Your task to perform on an android device: Go to accessibility settings Image 0: 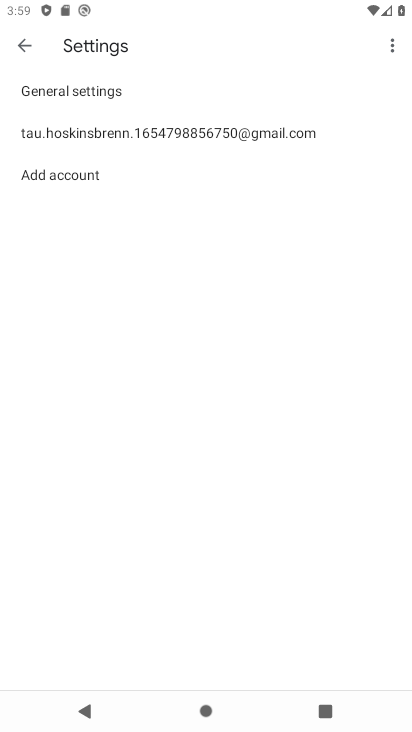
Step 0: click (13, 40)
Your task to perform on an android device: Go to accessibility settings Image 1: 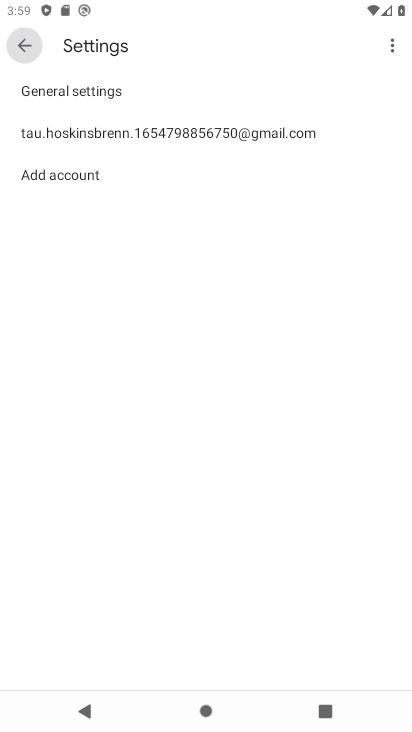
Step 1: click (14, 45)
Your task to perform on an android device: Go to accessibility settings Image 2: 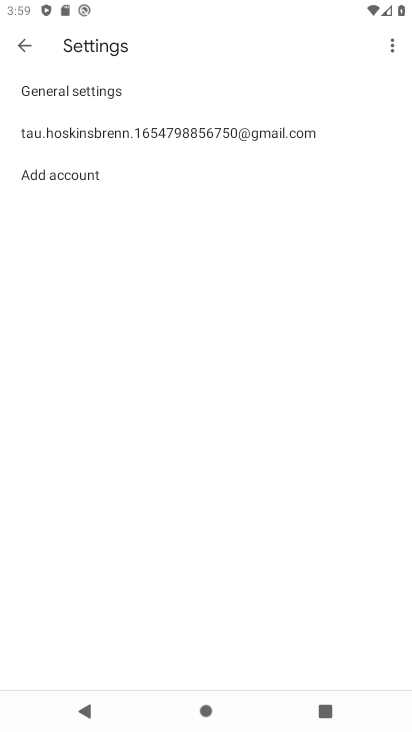
Step 2: click (14, 45)
Your task to perform on an android device: Go to accessibility settings Image 3: 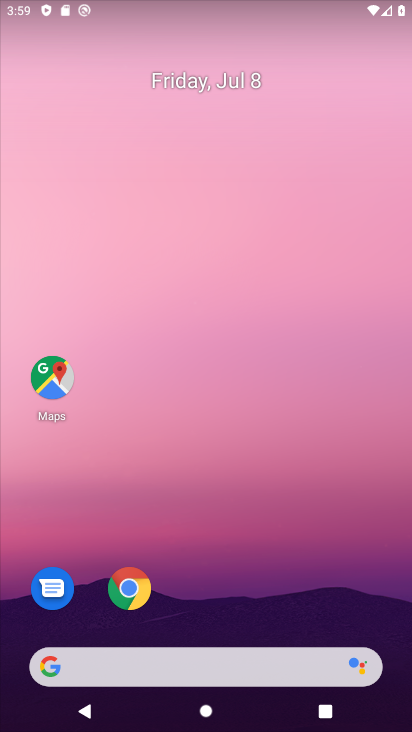
Step 3: drag from (232, 299) to (197, 160)
Your task to perform on an android device: Go to accessibility settings Image 4: 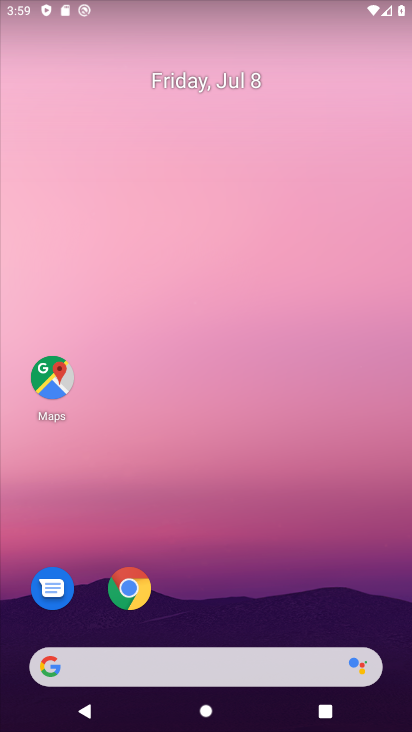
Step 4: drag from (213, 633) to (213, 203)
Your task to perform on an android device: Go to accessibility settings Image 5: 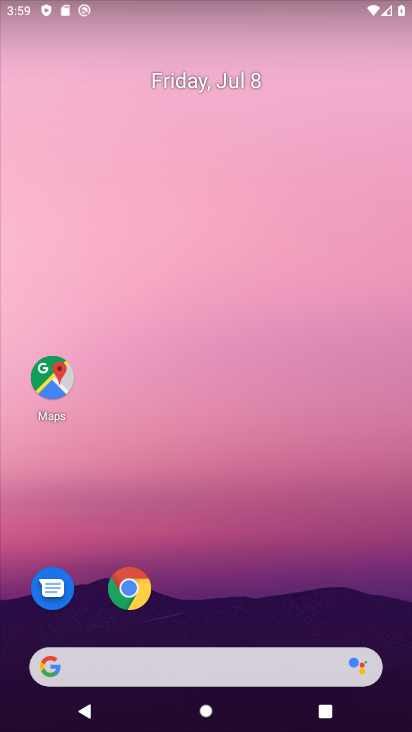
Step 5: click (225, 347)
Your task to perform on an android device: Go to accessibility settings Image 6: 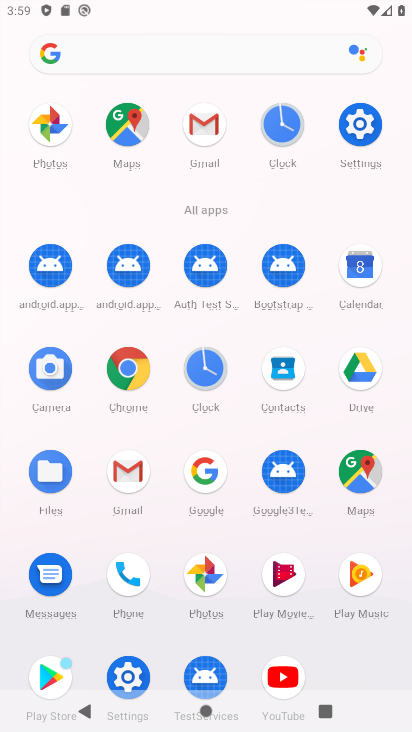
Step 6: click (359, 136)
Your task to perform on an android device: Go to accessibility settings Image 7: 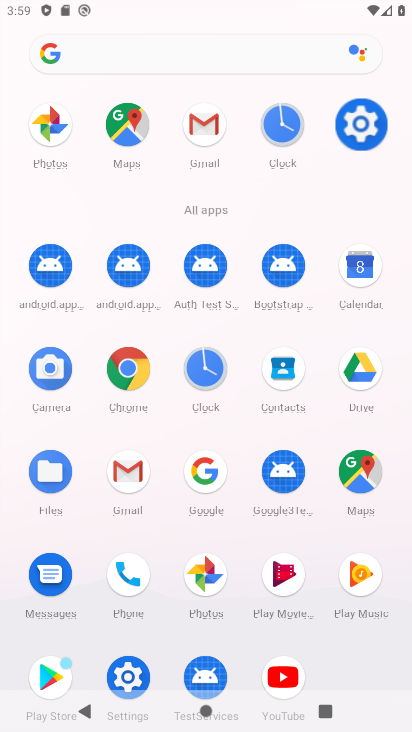
Step 7: click (366, 131)
Your task to perform on an android device: Go to accessibility settings Image 8: 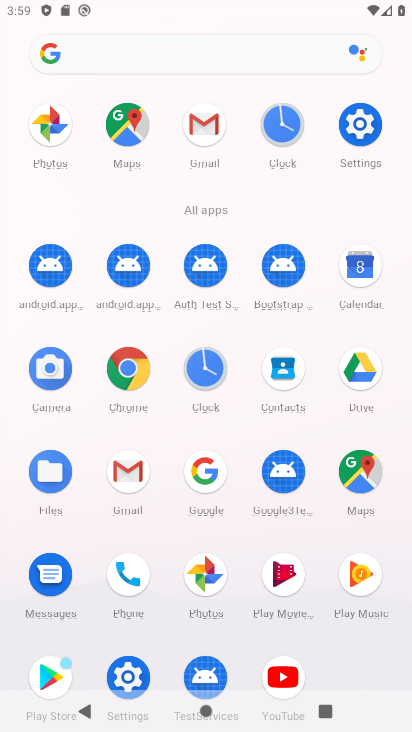
Step 8: click (359, 130)
Your task to perform on an android device: Go to accessibility settings Image 9: 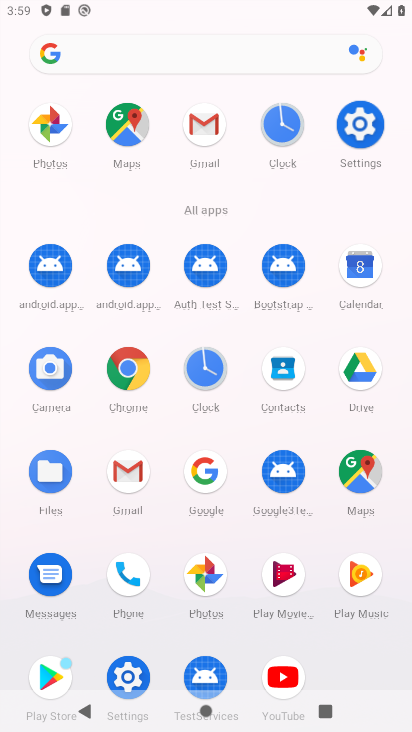
Step 9: click (355, 133)
Your task to perform on an android device: Go to accessibility settings Image 10: 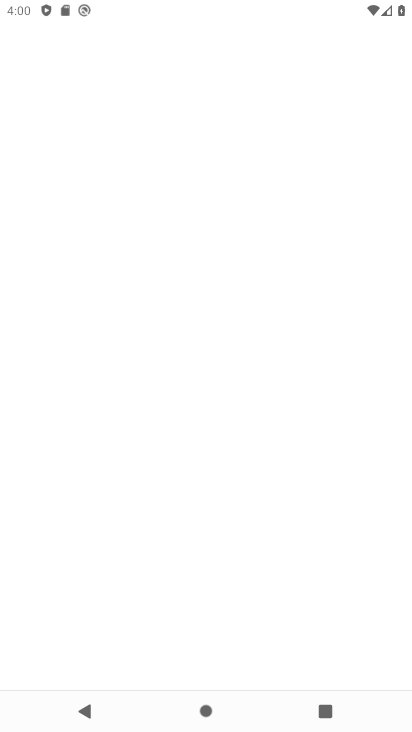
Step 10: click (364, 129)
Your task to perform on an android device: Go to accessibility settings Image 11: 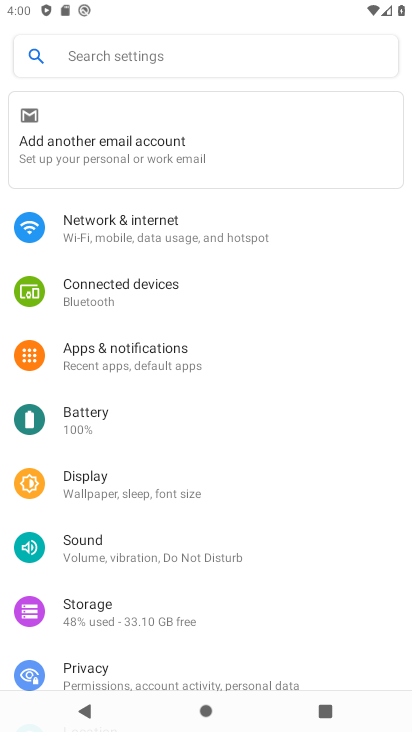
Step 11: drag from (110, 574) to (72, 100)
Your task to perform on an android device: Go to accessibility settings Image 12: 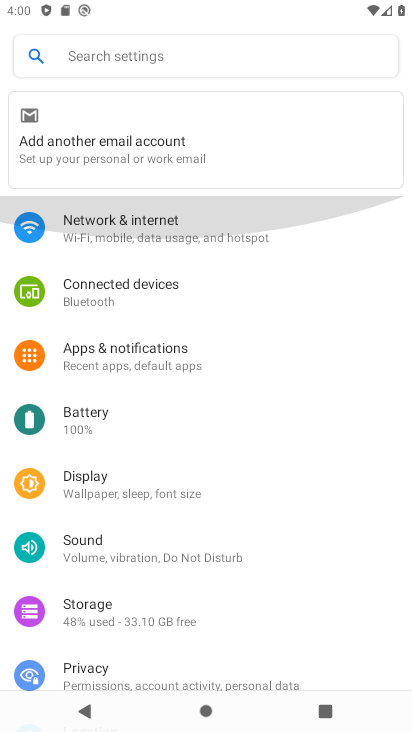
Step 12: drag from (169, 466) to (116, 12)
Your task to perform on an android device: Go to accessibility settings Image 13: 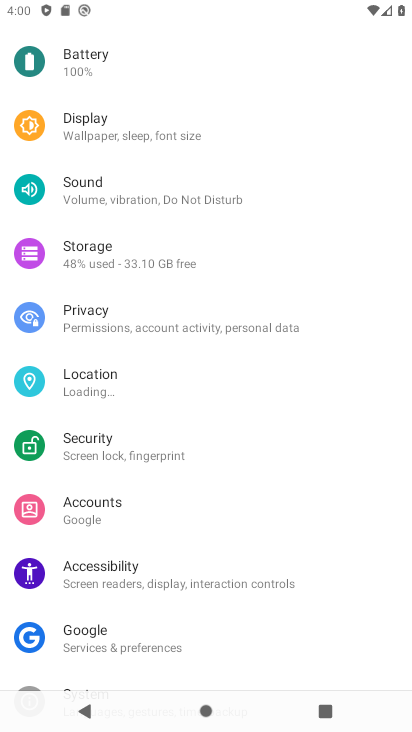
Step 13: click (82, 7)
Your task to perform on an android device: Go to accessibility settings Image 14: 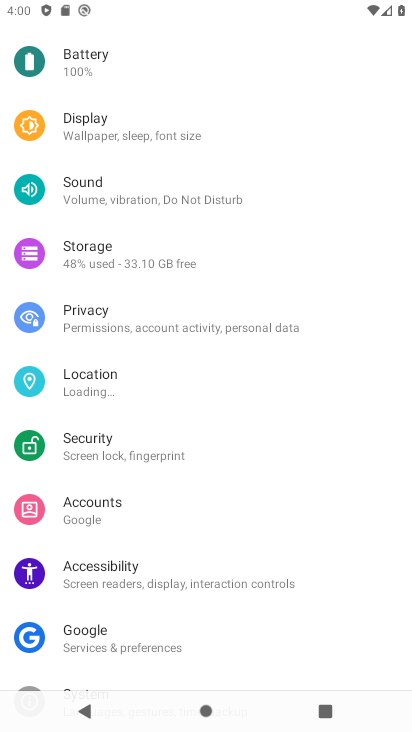
Step 14: drag from (208, 444) to (138, 334)
Your task to perform on an android device: Go to accessibility settings Image 15: 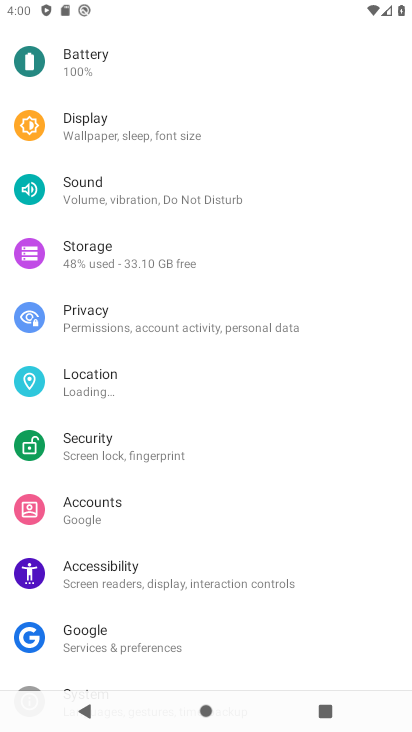
Step 15: click (97, 570)
Your task to perform on an android device: Go to accessibility settings Image 16: 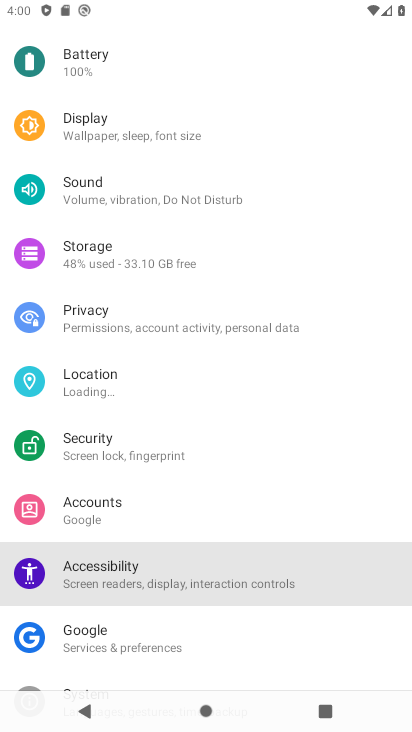
Step 16: click (96, 571)
Your task to perform on an android device: Go to accessibility settings Image 17: 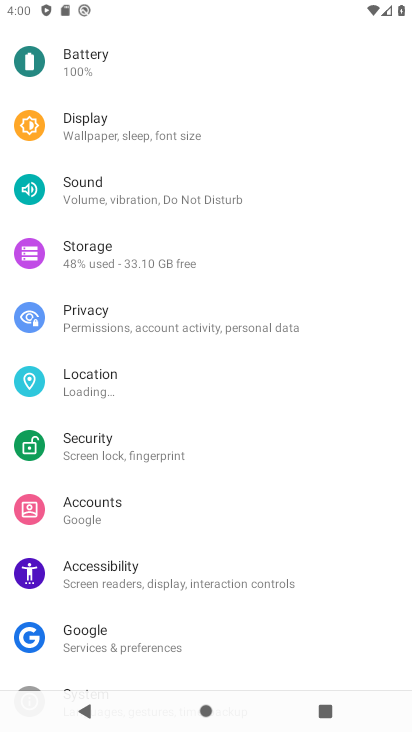
Step 17: click (95, 565)
Your task to perform on an android device: Go to accessibility settings Image 18: 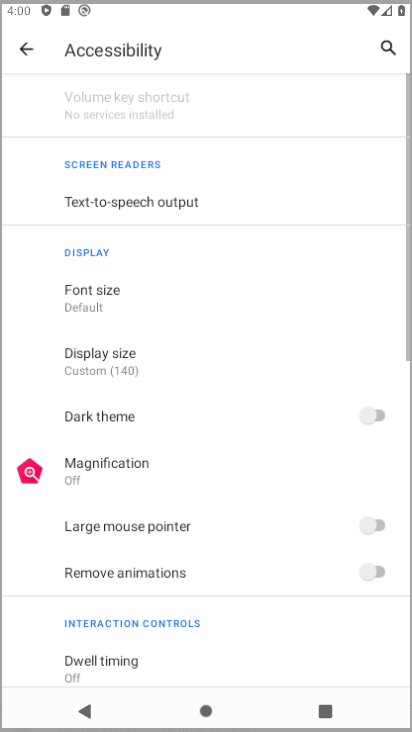
Step 18: click (100, 564)
Your task to perform on an android device: Go to accessibility settings Image 19: 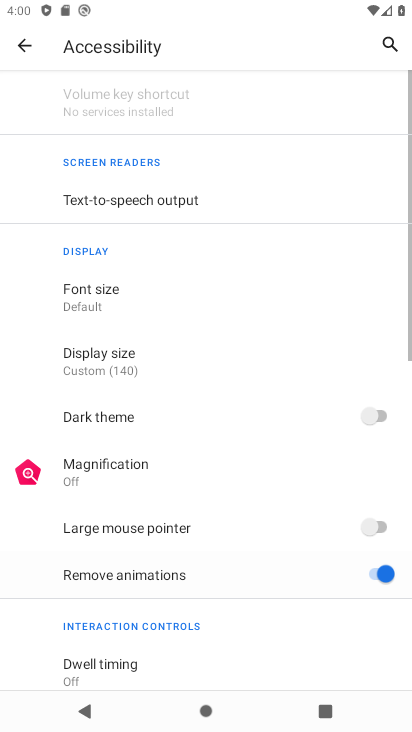
Step 19: click (90, 556)
Your task to perform on an android device: Go to accessibility settings Image 20: 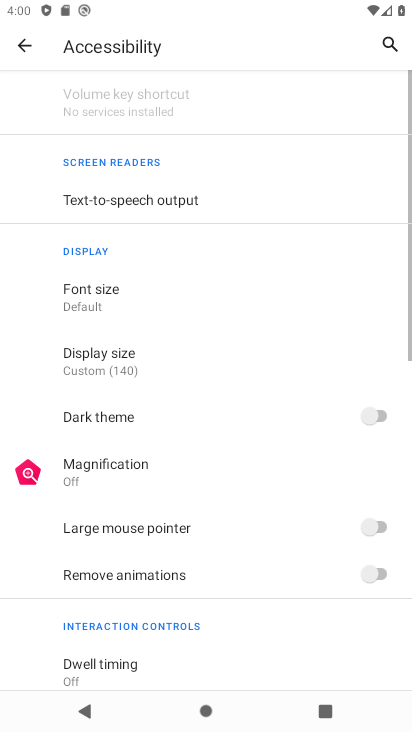
Step 20: task complete